Your task to perform on an android device: Search for hotels in Washington DC Image 0: 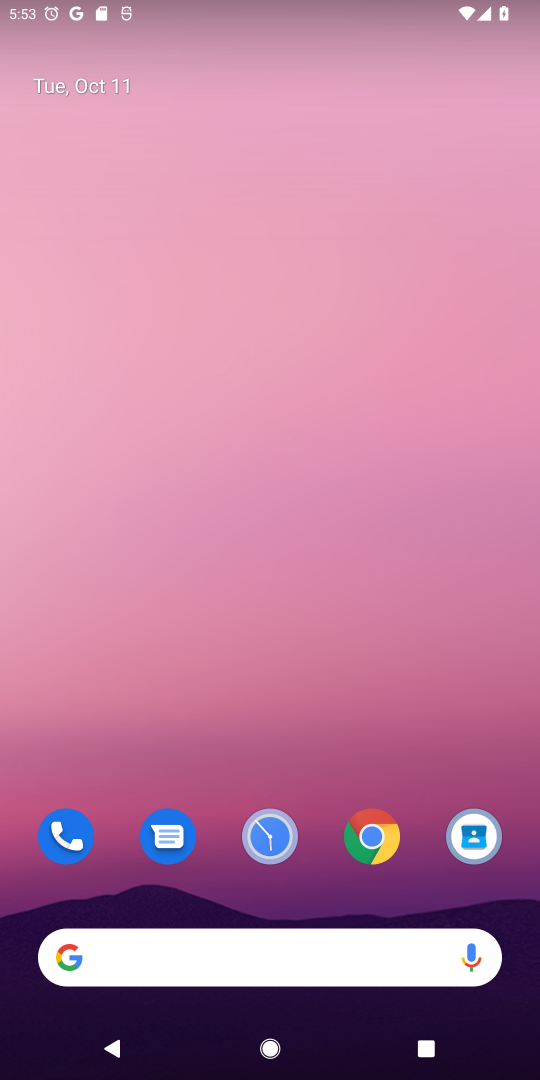
Step 0: click (194, 976)
Your task to perform on an android device: Search for hotels in Washington DC Image 1: 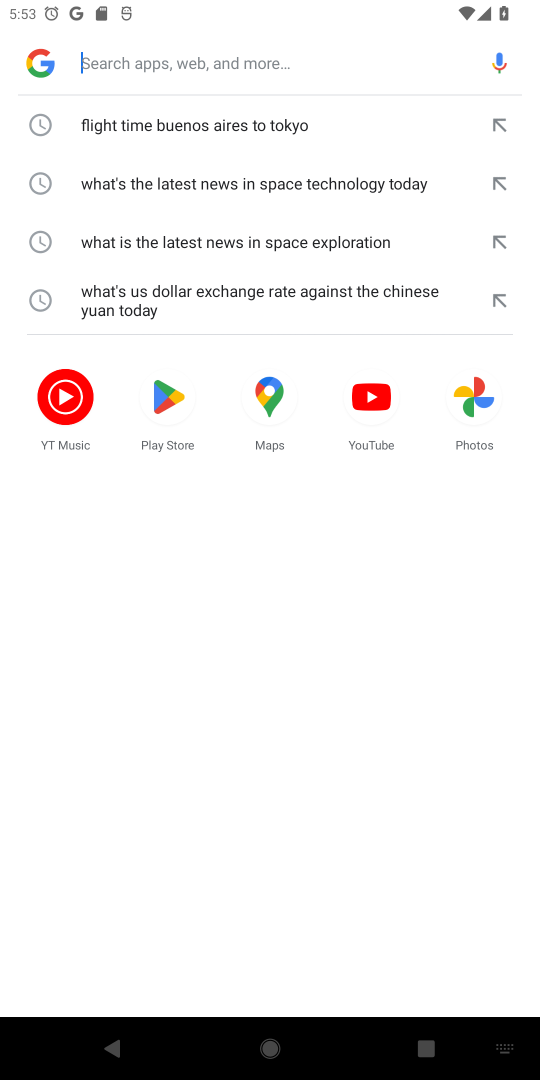
Step 1: type "hotels in Washington DC"
Your task to perform on an android device: Search for hotels in Washington DC Image 2: 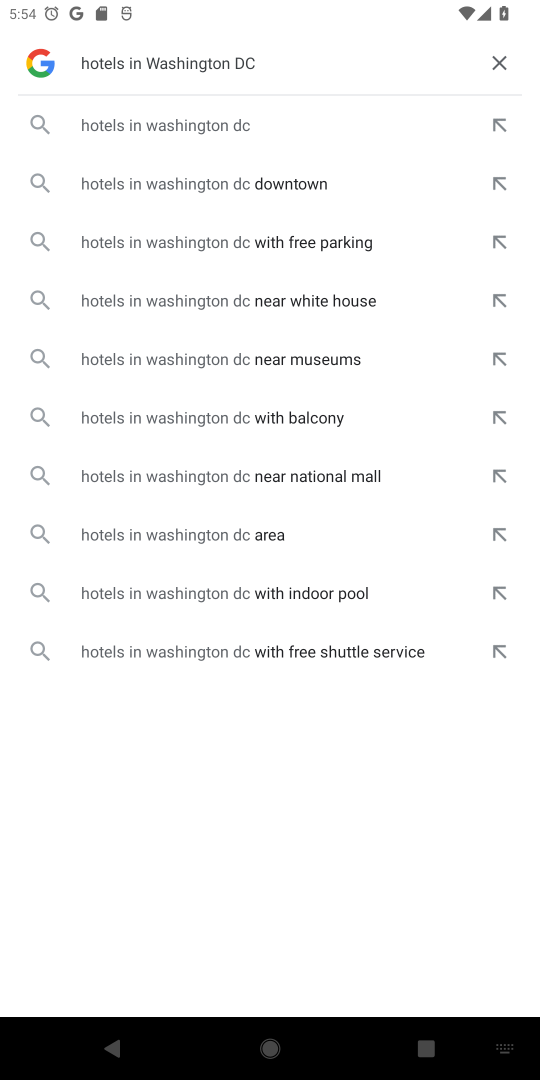
Step 2: click (89, 123)
Your task to perform on an android device: Search for hotels in Washington DC Image 3: 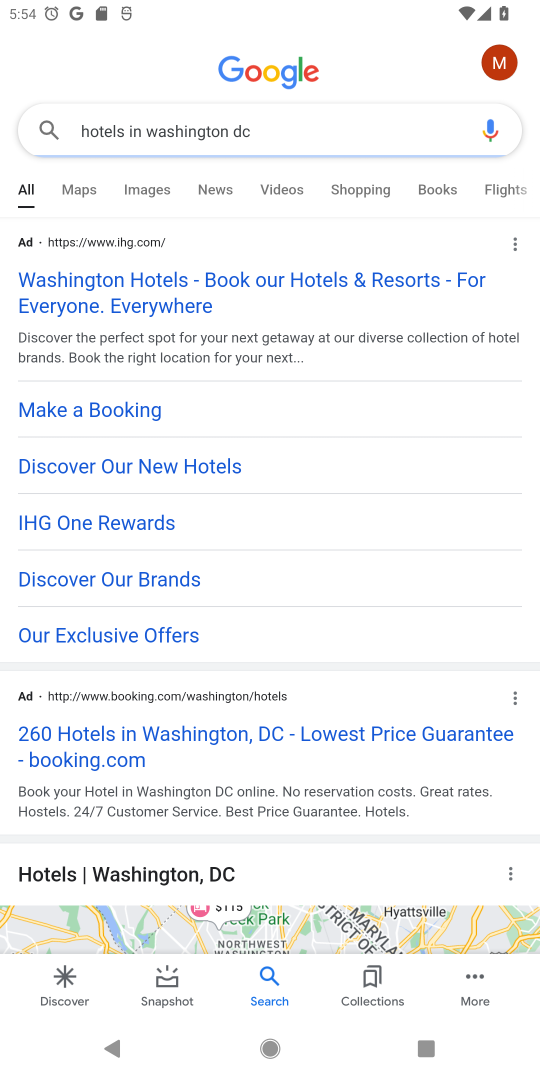
Step 3: task complete